Your task to perform on an android device: check the backup settings in the google photos Image 0: 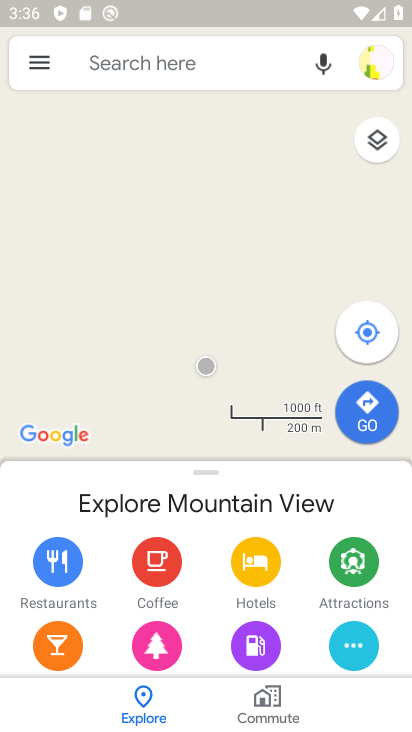
Step 0: press home button
Your task to perform on an android device: check the backup settings in the google photos Image 1: 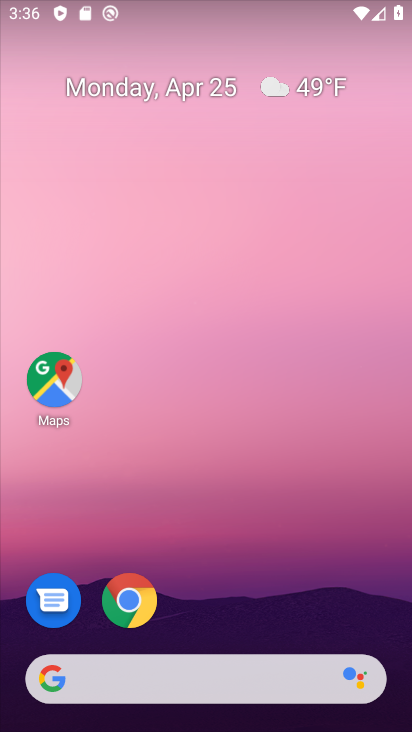
Step 1: drag from (315, 557) to (338, 9)
Your task to perform on an android device: check the backup settings in the google photos Image 2: 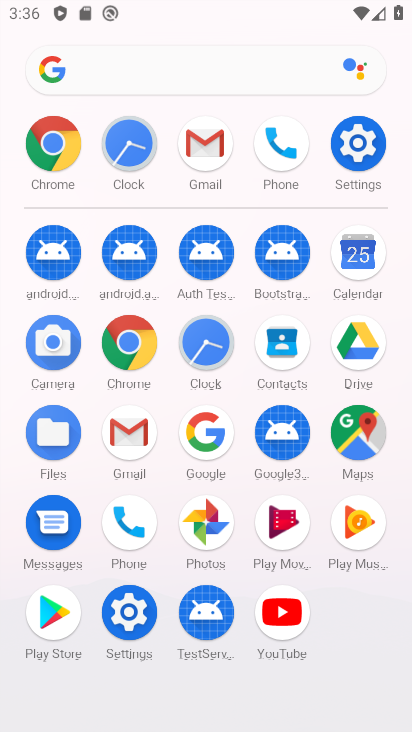
Step 2: click (211, 520)
Your task to perform on an android device: check the backup settings in the google photos Image 3: 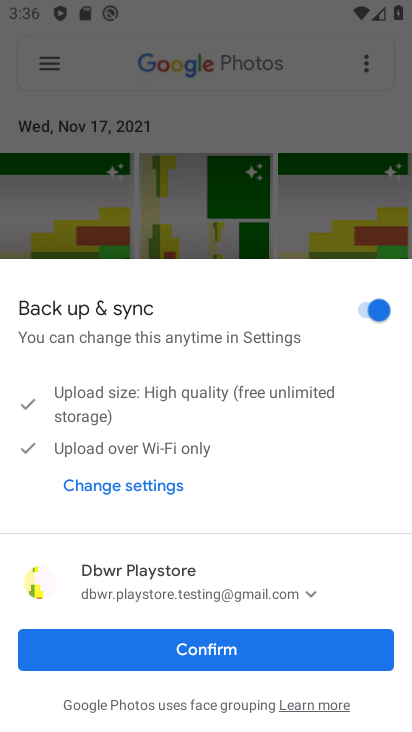
Step 3: click (257, 653)
Your task to perform on an android device: check the backup settings in the google photos Image 4: 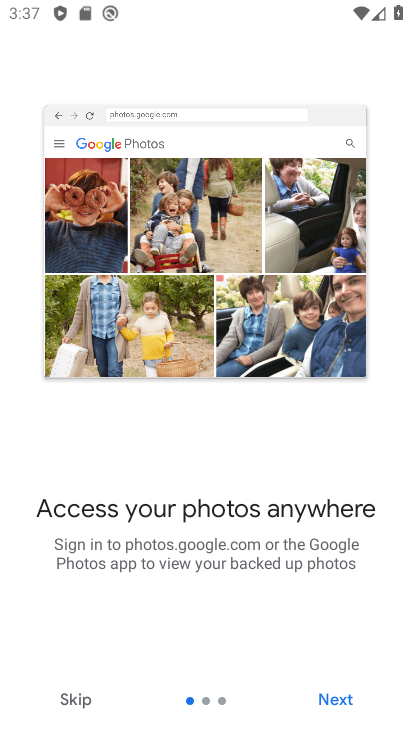
Step 4: click (329, 696)
Your task to perform on an android device: check the backup settings in the google photos Image 5: 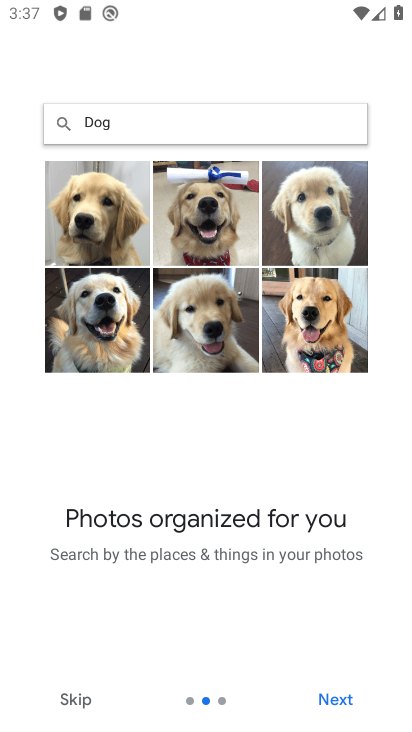
Step 5: click (329, 696)
Your task to perform on an android device: check the backup settings in the google photos Image 6: 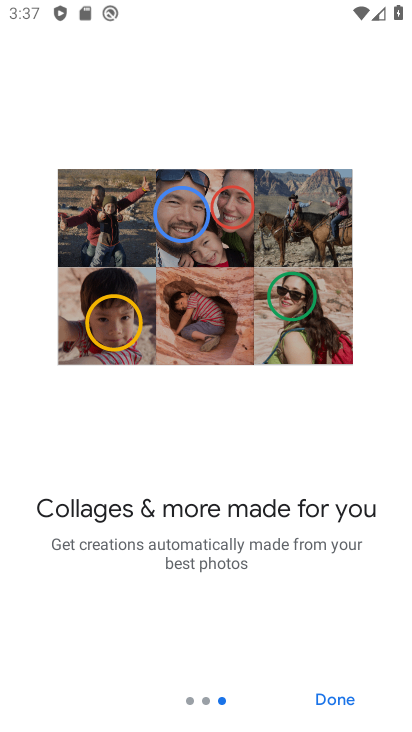
Step 6: click (329, 696)
Your task to perform on an android device: check the backup settings in the google photos Image 7: 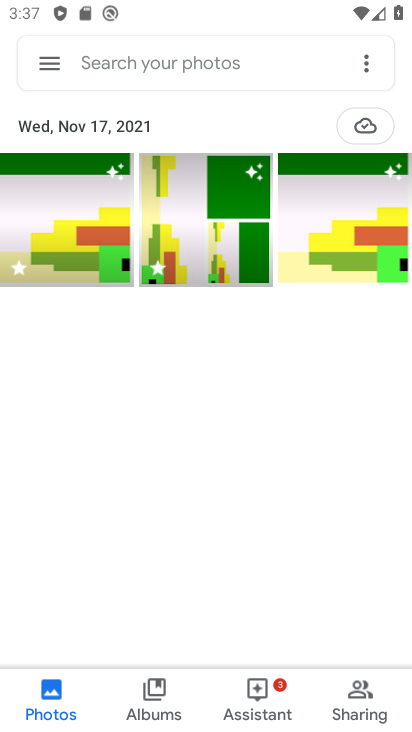
Step 7: click (53, 61)
Your task to perform on an android device: check the backup settings in the google photos Image 8: 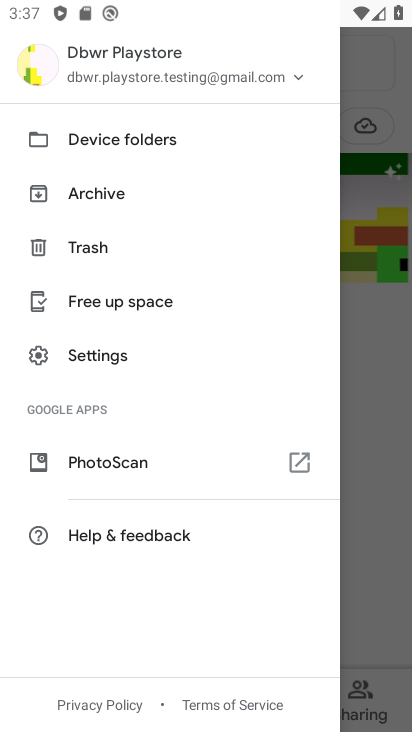
Step 8: click (108, 352)
Your task to perform on an android device: check the backup settings in the google photos Image 9: 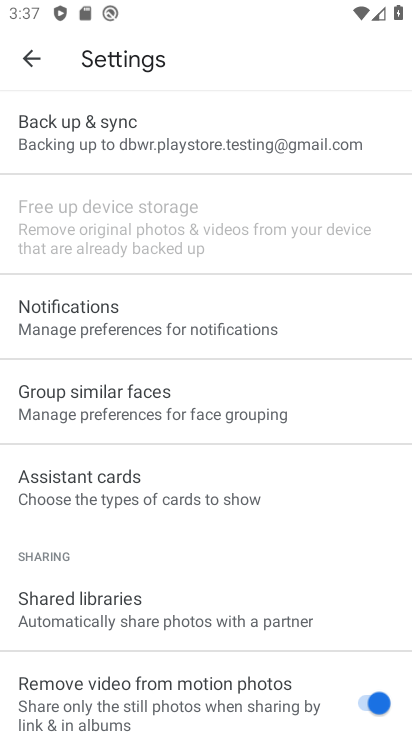
Step 9: click (130, 130)
Your task to perform on an android device: check the backup settings in the google photos Image 10: 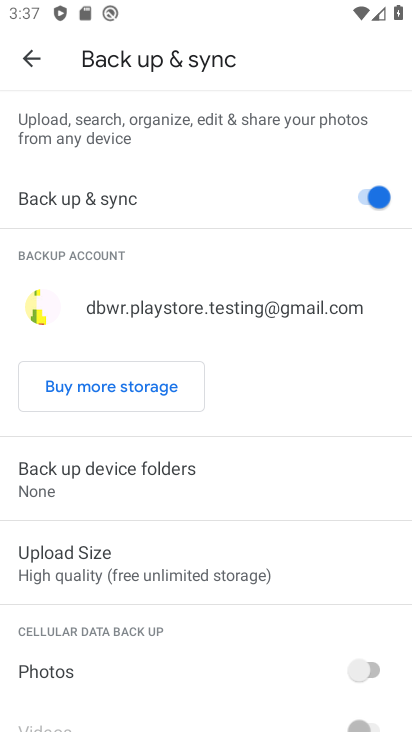
Step 10: task complete